Your task to perform on an android device: turn vacation reply on in the gmail app Image 0: 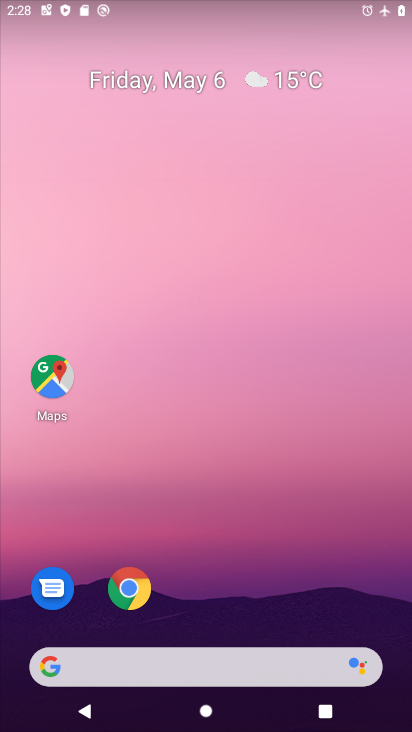
Step 0: drag from (172, 622) to (212, 227)
Your task to perform on an android device: turn vacation reply on in the gmail app Image 1: 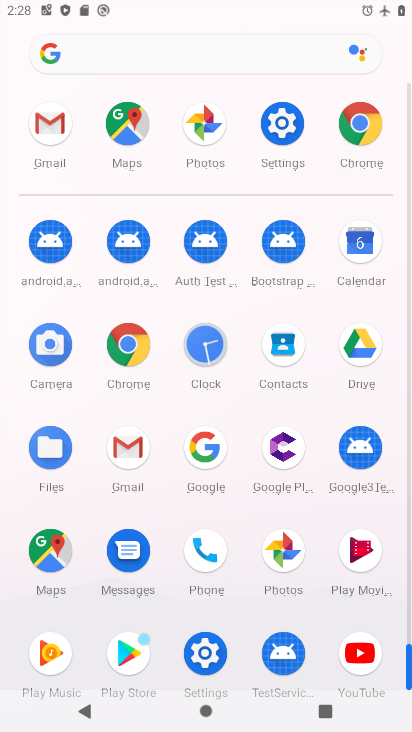
Step 1: click (142, 462)
Your task to perform on an android device: turn vacation reply on in the gmail app Image 2: 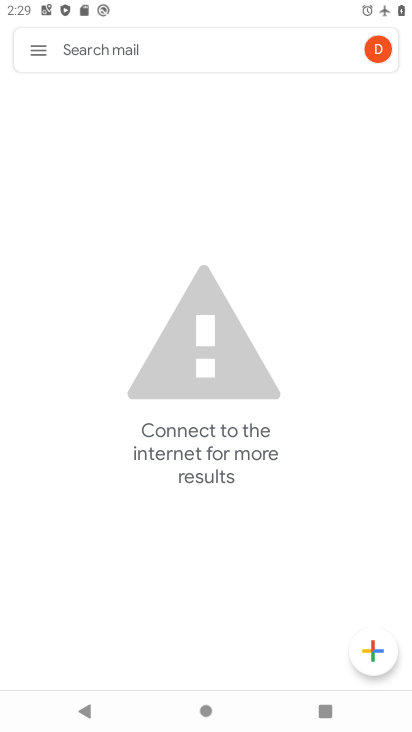
Step 2: click (31, 53)
Your task to perform on an android device: turn vacation reply on in the gmail app Image 3: 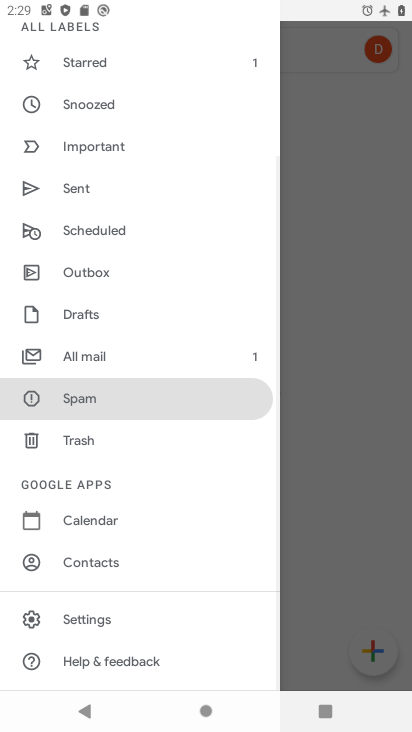
Step 3: drag from (151, 634) to (150, 173)
Your task to perform on an android device: turn vacation reply on in the gmail app Image 4: 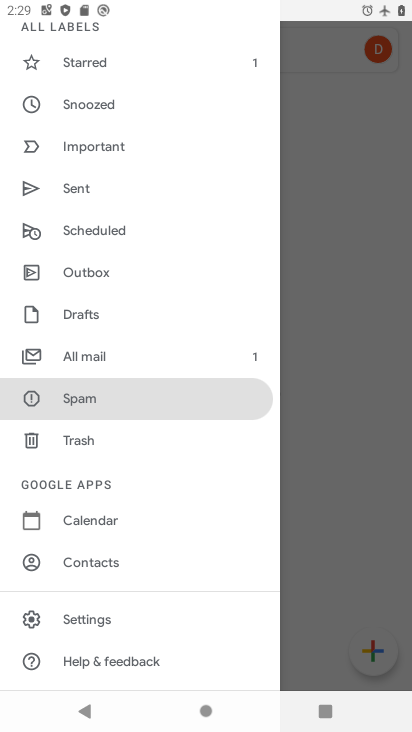
Step 4: click (109, 624)
Your task to perform on an android device: turn vacation reply on in the gmail app Image 5: 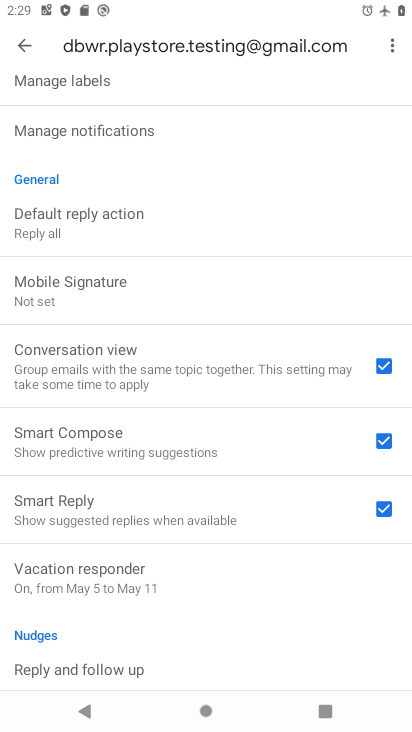
Step 5: drag from (195, 613) to (211, 200)
Your task to perform on an android device: turn vacation reply on in the gmail app Image 6: 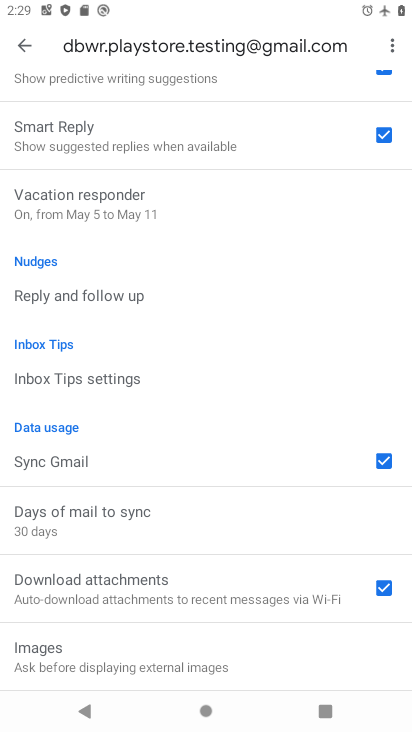
Step 6: click (148, 201)
Your task to perform on an android device: turn vacation reply on in the gmail app Image 7: 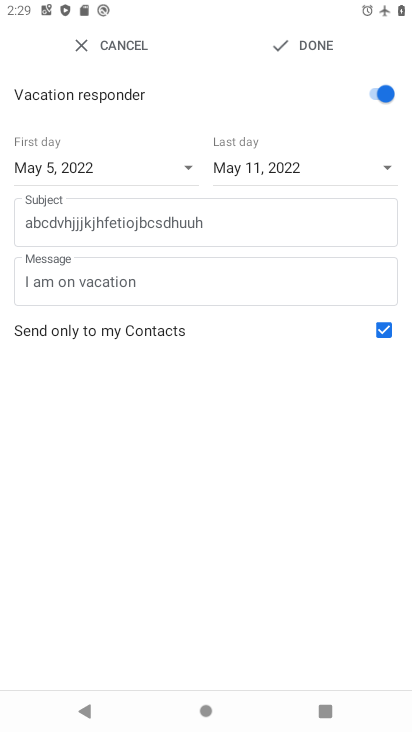
Step 7: click (322, 42)
Your task to perform on an android device: turn vacation reply on in the gmail app Image 8: 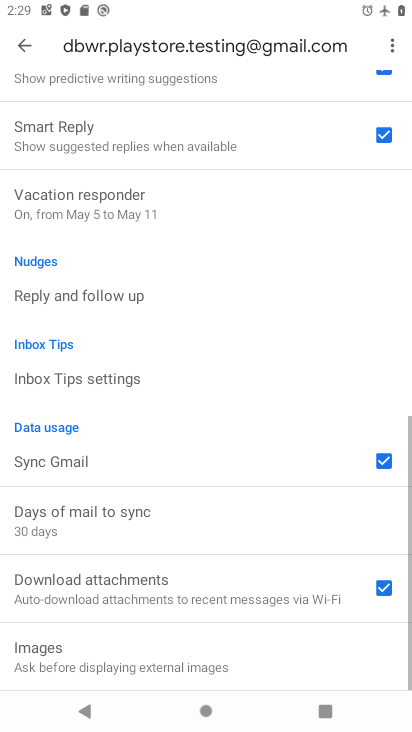
Step 8: task complete